Your task to perform on an android device: Go to location settings Image 0: 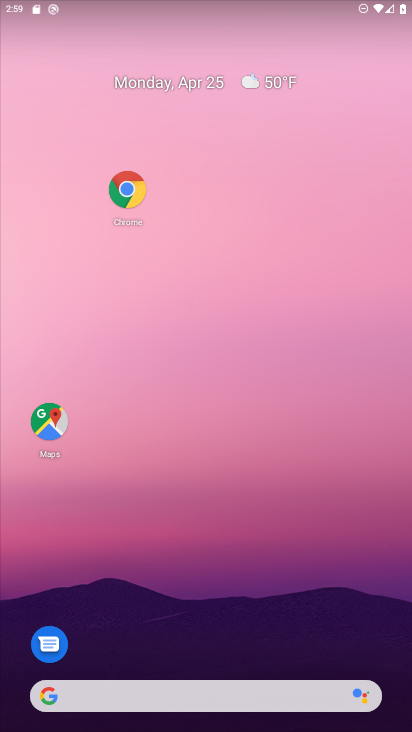
Step 0: drag from (179, 613) to (202, 142)
Your task to perform on an android device: Go to location settings Image 1: 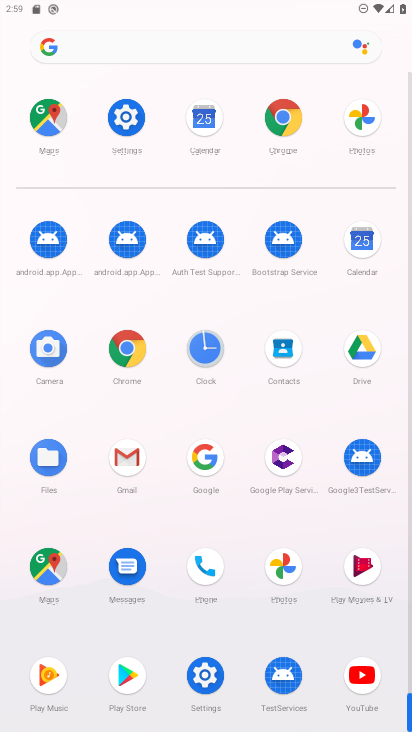
Step 1: click (120, 120)
Your task to perform on an android device: Go to location settings Image 2: 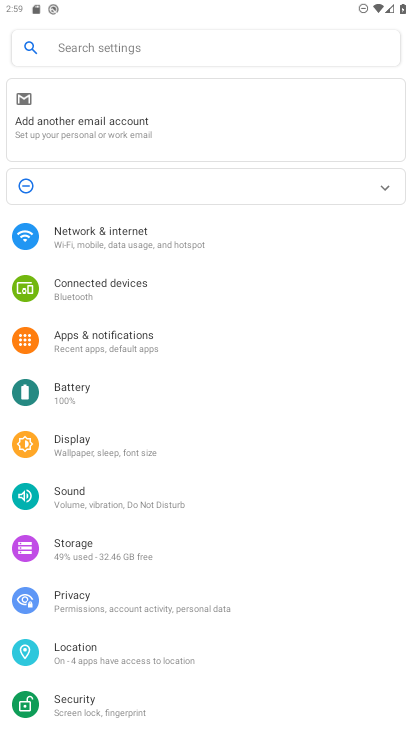
Step 2: click (91, 660)
Your task to perform on an android device: Go to location settings Image 3: 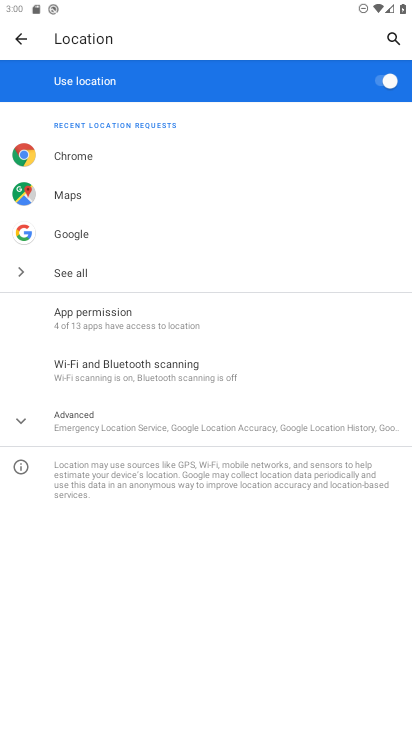
Step 3: task complete